Your task to perform on an android device: change the clock display to show seconds Image 0: 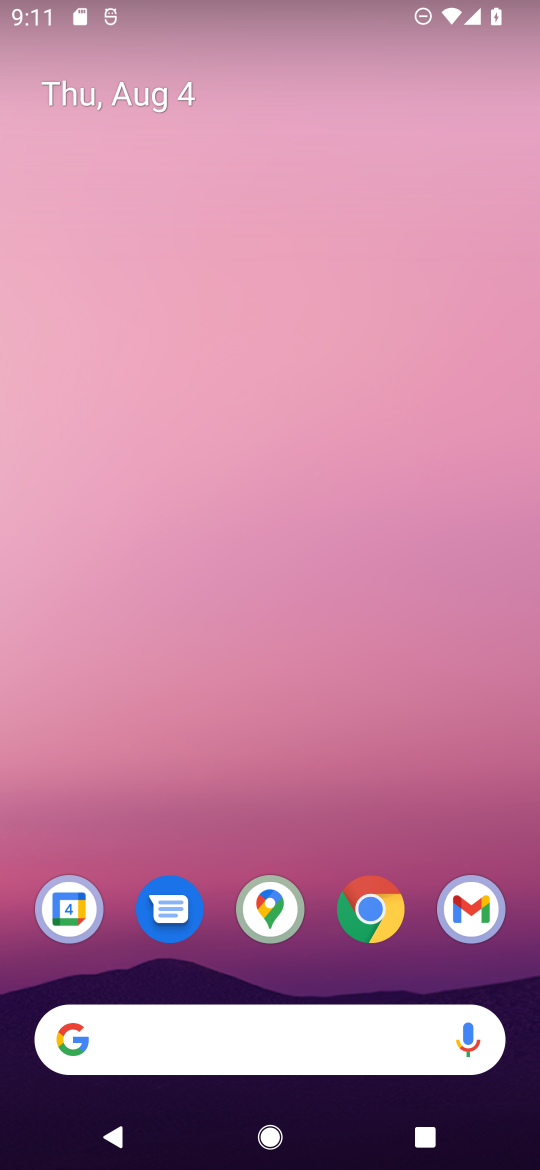
Step 0: press home button
Your task to perform on an android device: change the clock display to show seconds Image 1: 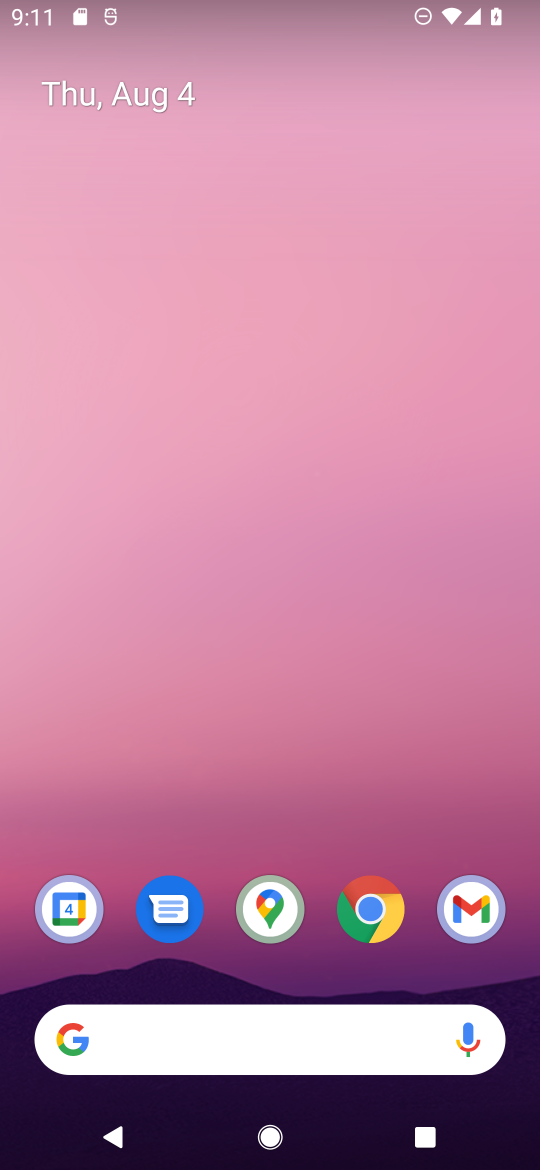
Step 1: drag from (122, 838) to (182, 228)
Your task to perform on an android device: change the clock display to show seconds Image 2: 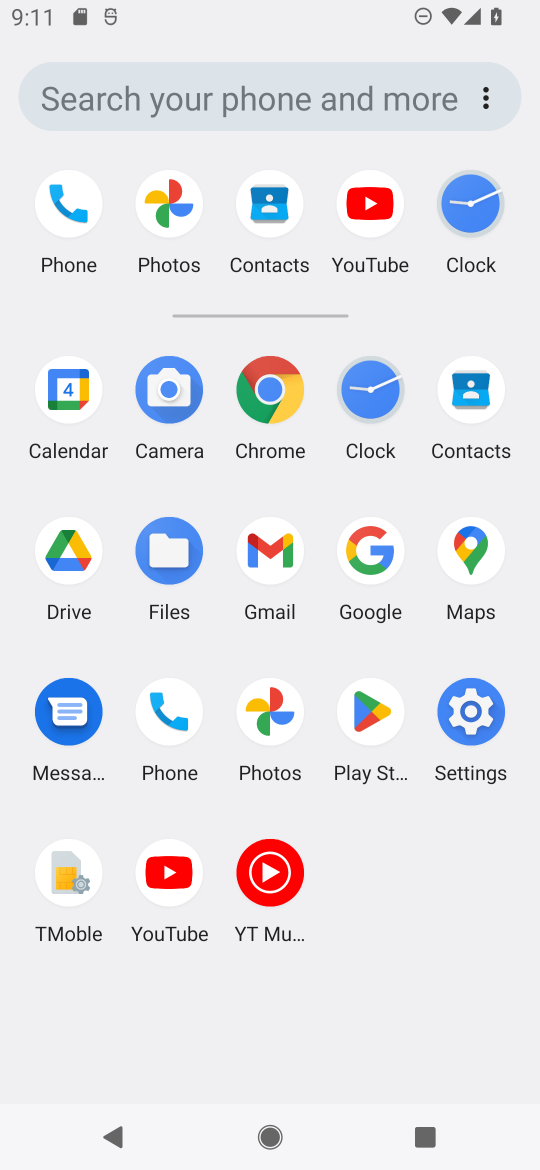
Step 2: click (368, 394)
Your task to perform on an android device: change the clock display to show seconds Image 3: 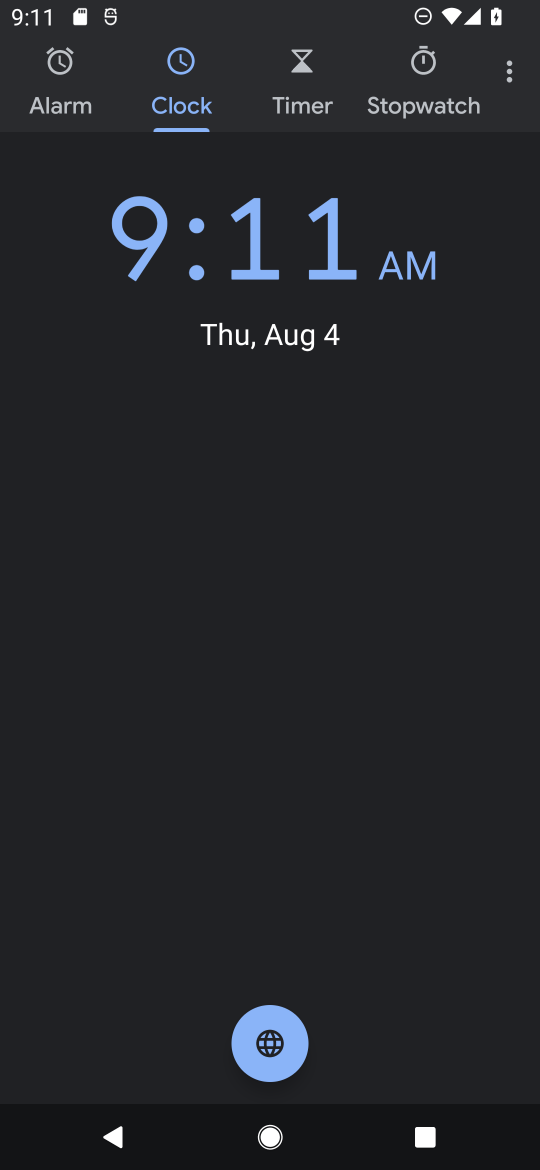
Step 3: click (511, 78)
Your task to perform on an android device: change the clock display to show seconds Image 4: 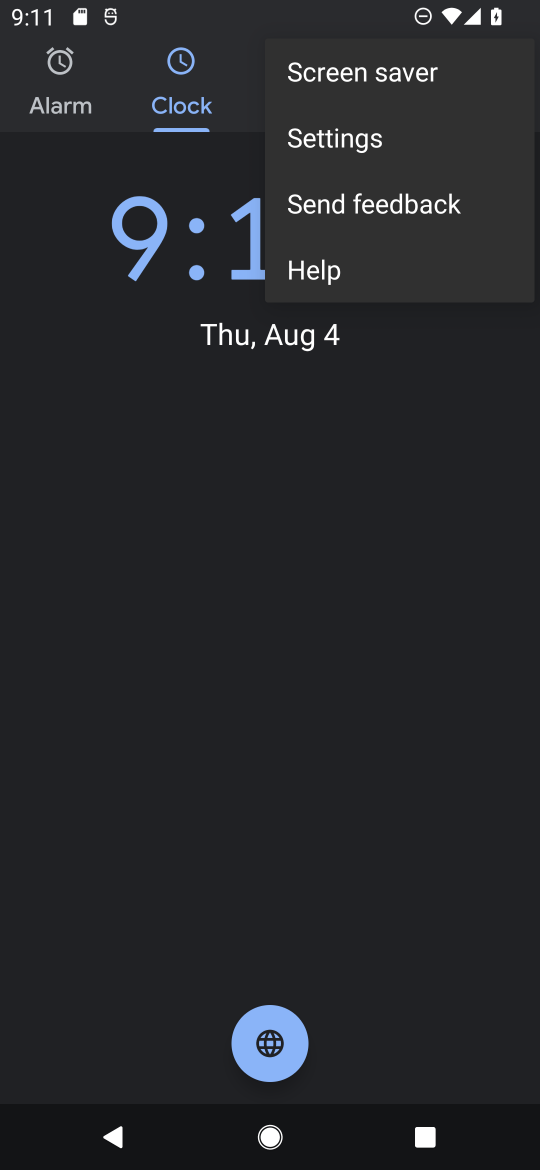
Step 4: click (374, 145)
Your task to perform on an android device: change the clock display to show seconds Image 5: 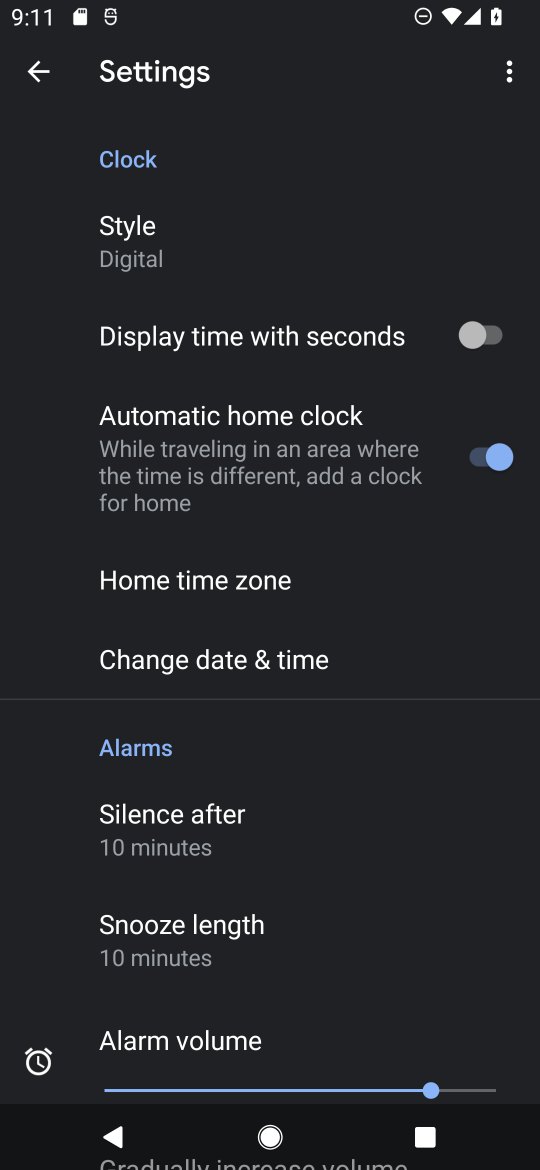
Step 5: drag from (449, 815) to (457, 626)
Your task to perform on an android device: change the clock display to show seconds Image 6: 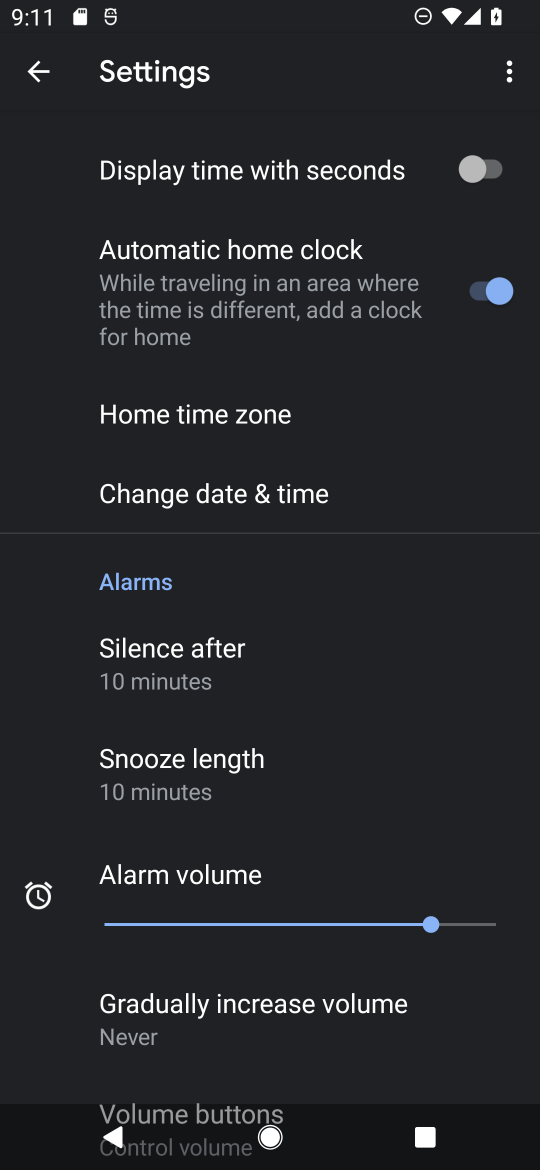
Step 6: drag from (367, 864) to (375, 647)
Your task to perform on an android device: change the clock display to show seconds Image 7: 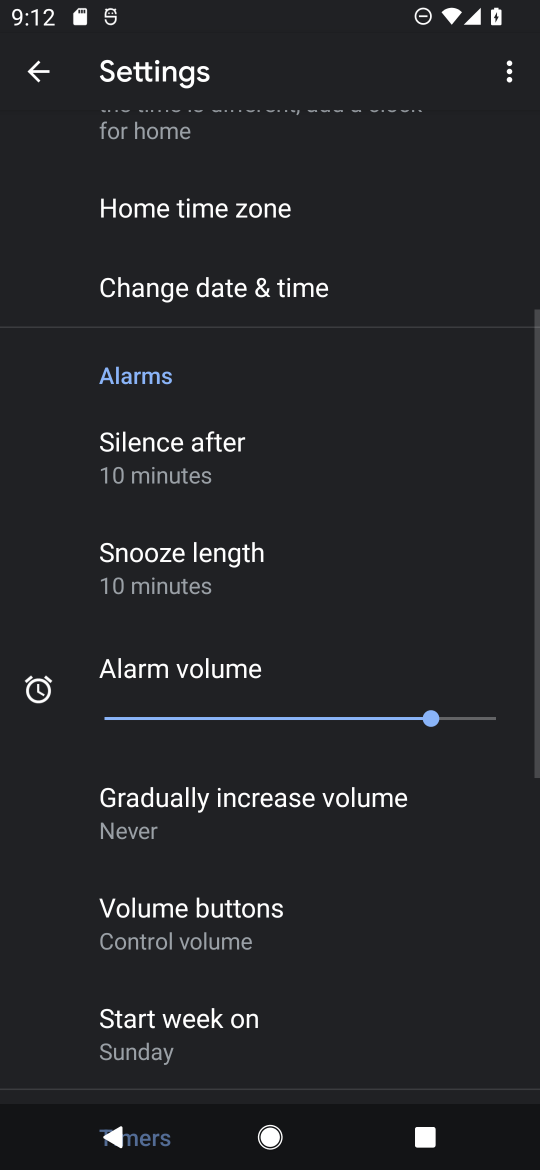
Step 7: drag from (357, 900) to (376, 703)
Your task to perform on an android device: change the clock display to show seconds Image 8: 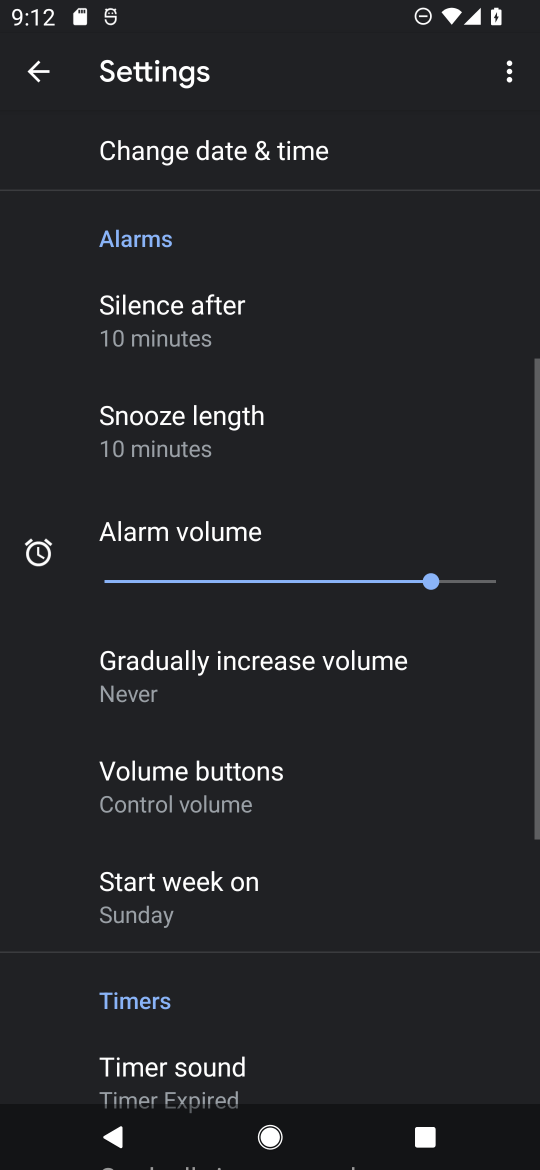
Step 8: drag from (385, 967) to (401, 733)
Your task to perform on an android device: change the clock display to show seconds Image 9: 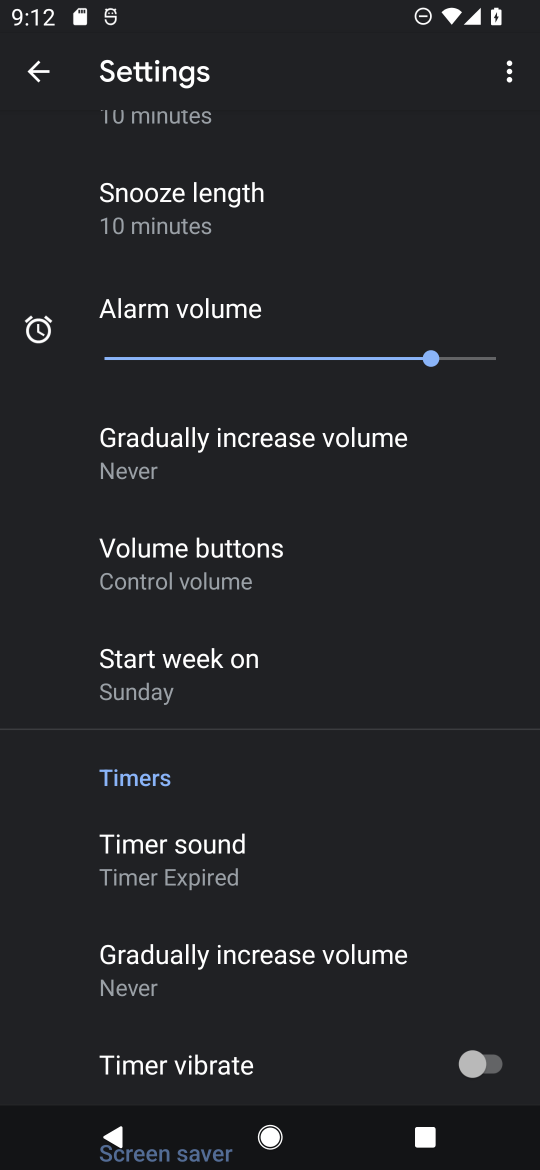
Step 9: drag from (342, 1032) to (367, 786)
Your task to perform on an android device: change the clock display to show seconds Image 10: 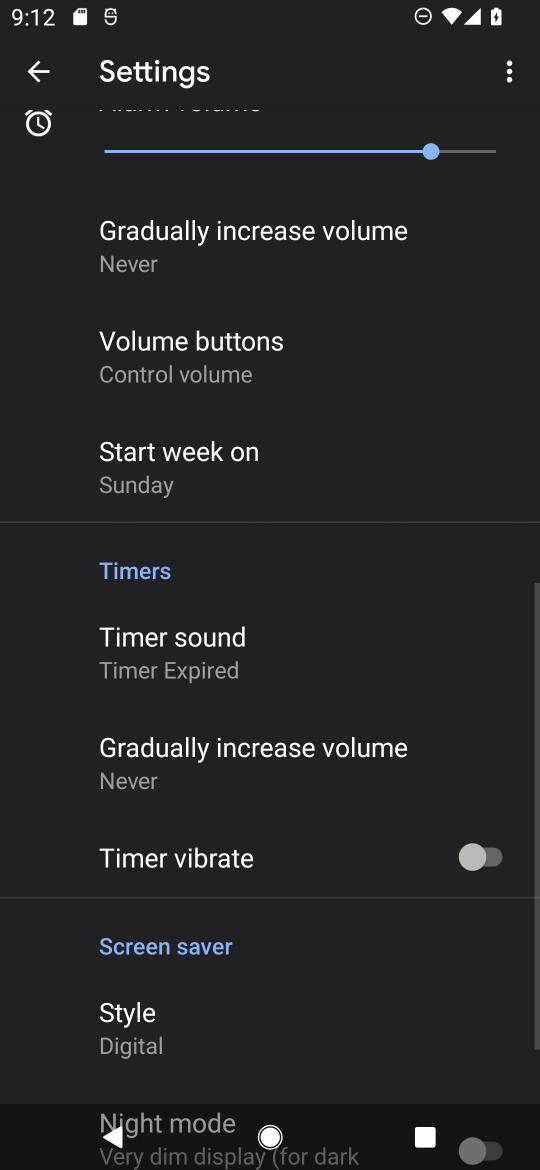
Step 10: drag from (319, 965) to (345, 752)
Your task to perform on an android device: change the clock display to show seconds Image 11: 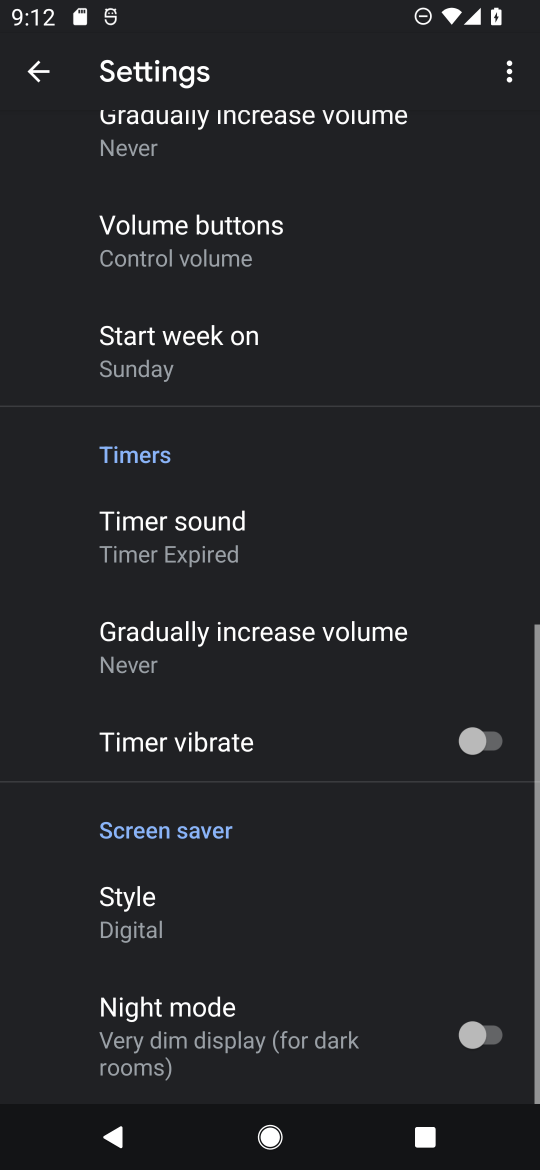
Step 11: drag from (378, 341) to (363, 564)
Your task to perform on an android device: change the clock display to show seconds Image 12: 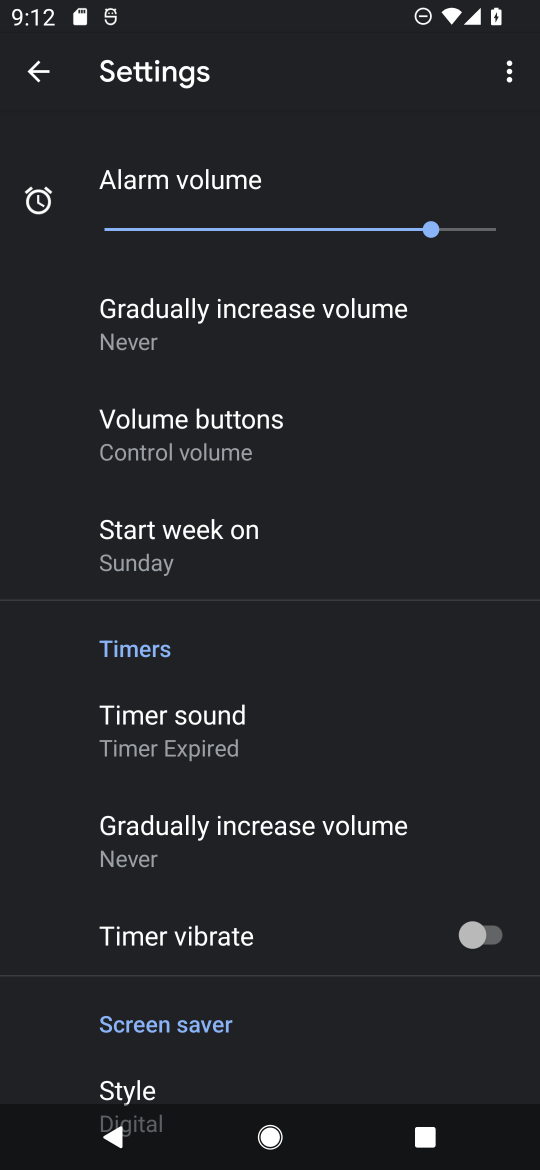
Step 12: drag from (363, 309) to (360, 512)
Your task to perform on an android device: change the clock display to show seconds Image 13: 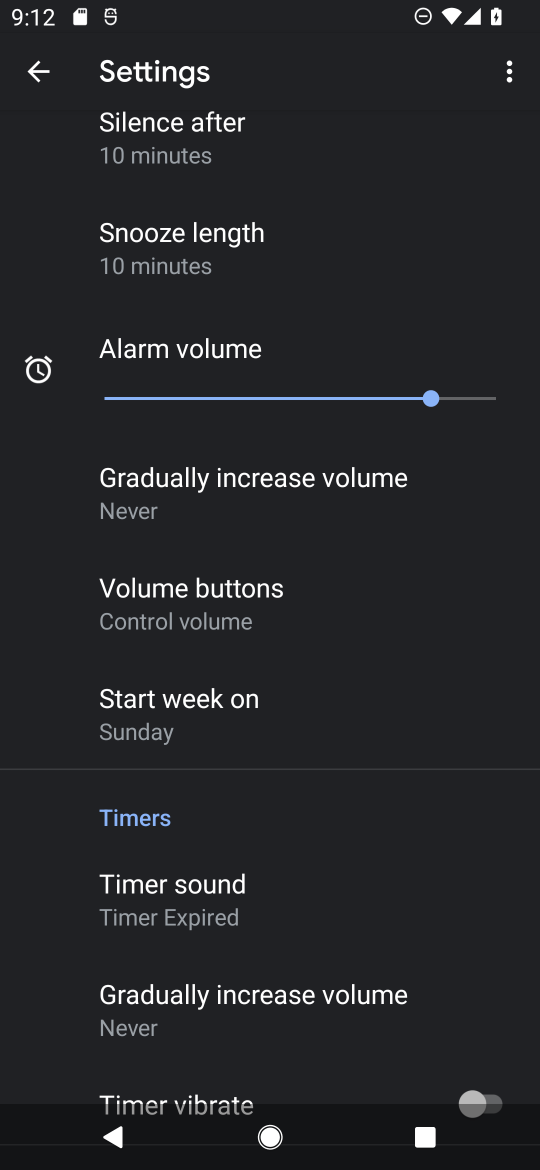
Step 13: drag from (349, 212) to (344, 499)
Your task to perform on an android device: change the clock display to show seconds Image 14: 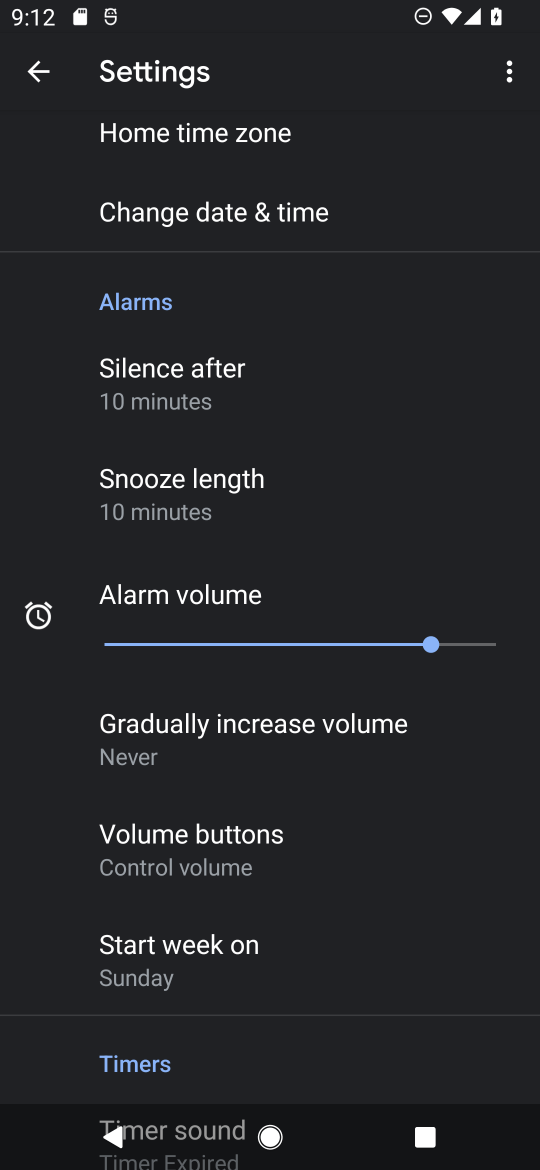
Step 14: drag from (355, 155) to (342, 466)
Your task to perform on an android device: change the clock display to show seconds Image 15: 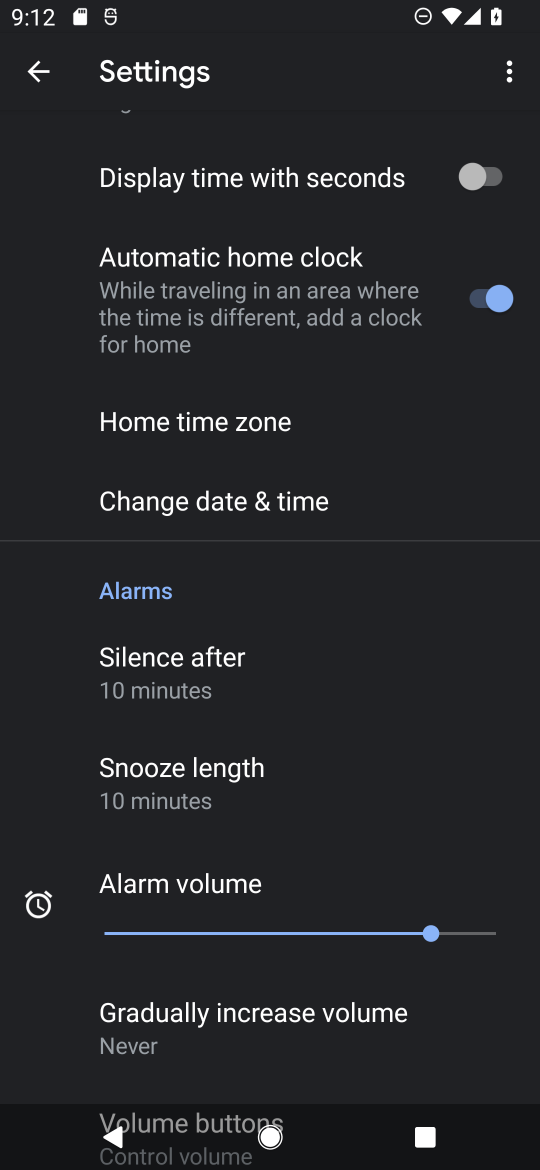
Step 15: drag from (414, 234) to (385, 555)
Your task to perform on an android device: change the clock display to show seconds Image 16: 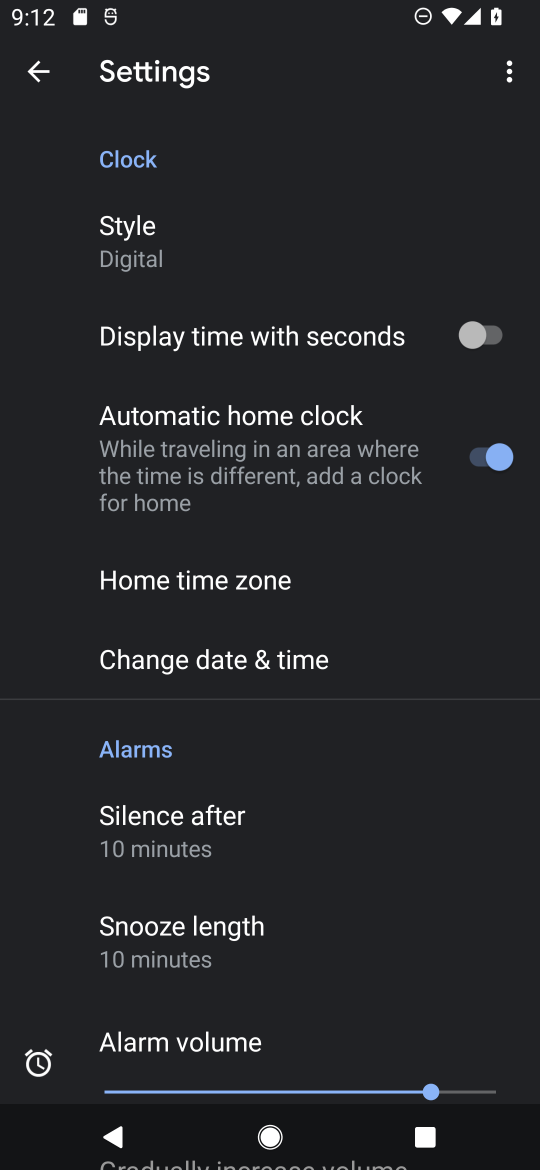
Step 16: click (472, 324)
Your task to perform on an android device: change the clock display to show seconds Image 17: 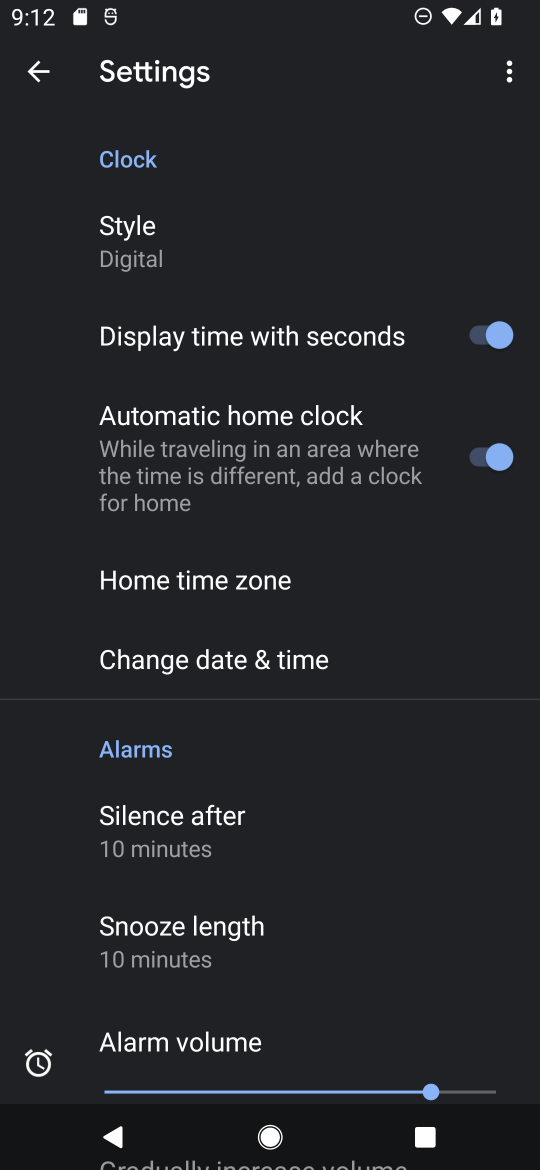
Step 17: task complete